Your task to perform on an android device: Open Google Chrome and open the bookmarks view Image 0: 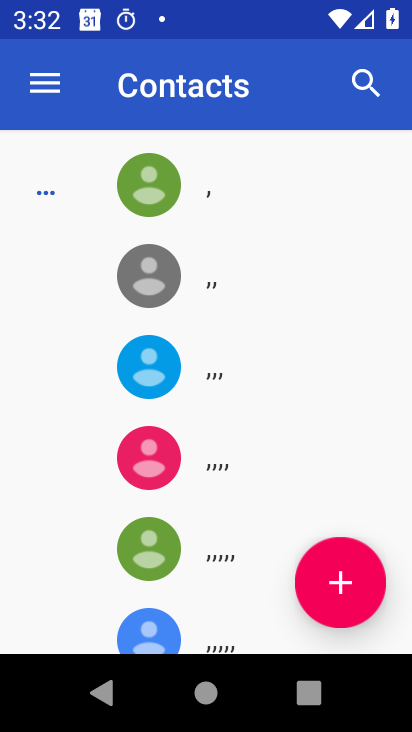
Step 0: press home button
Your task to perform on an android device: Open Google Chrome and open the bookmarks view Image 1: 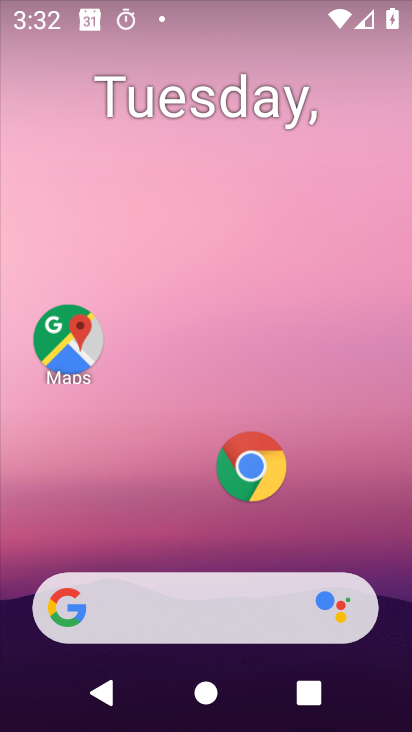
Step 1: drag from (161, 726) to (176, 101)
Your task to perform on an android device: Open Google Chrome and open the bookmarks view Image 2: 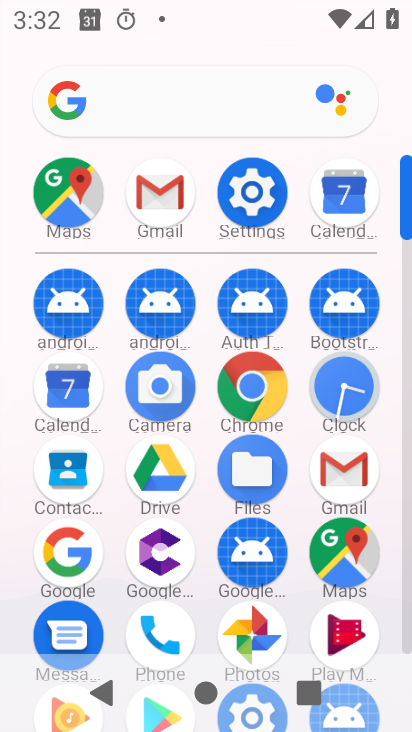
Step 2: click (247, 402)
Your task to perform on an android device: Open Google Chrome and open the bookmarks view Image 3: 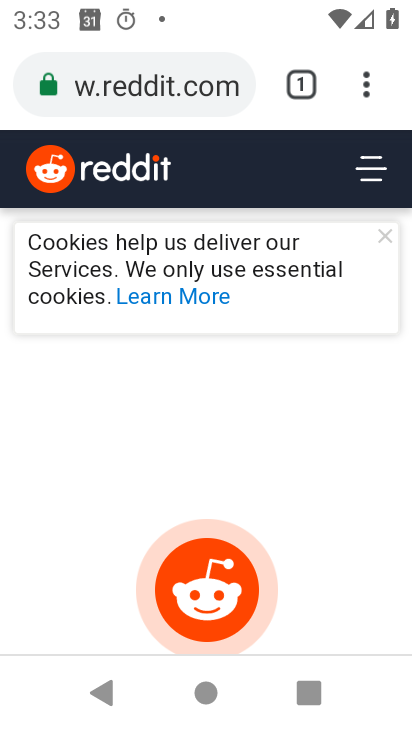
Step 3: click (374, 96)
Your task to perform on an android device: Open Google Chrome and open the bookmarks view Image 4: 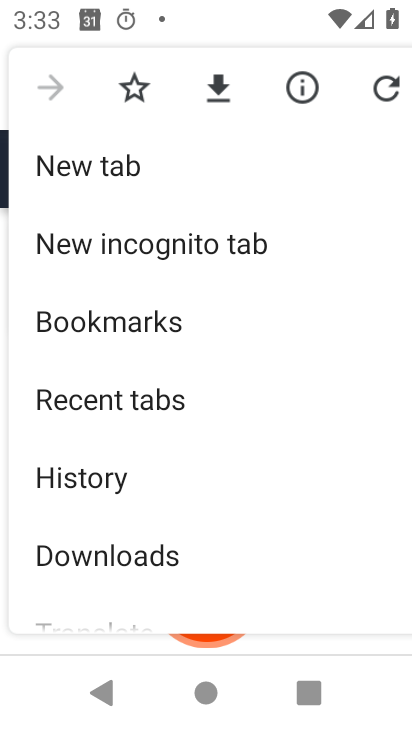
Step 4: click (126, 327)
Your task to perform on an android device: Open Google Chrome and open the bookmarks view Image 5: 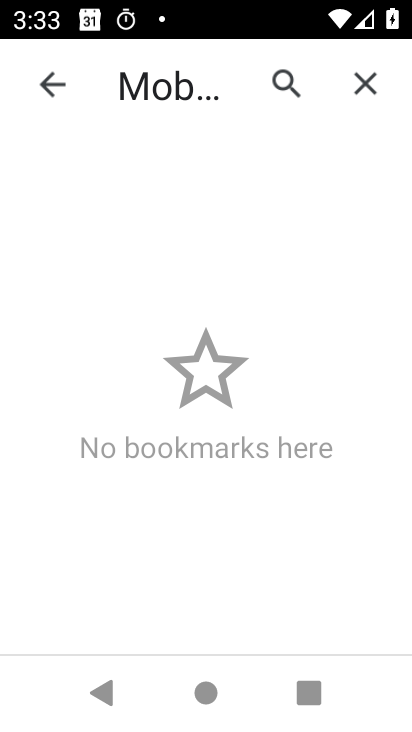
Step 5: task complete